Your task to perform on an android device: Open Google Maps and go to "Timeline" Image 0: 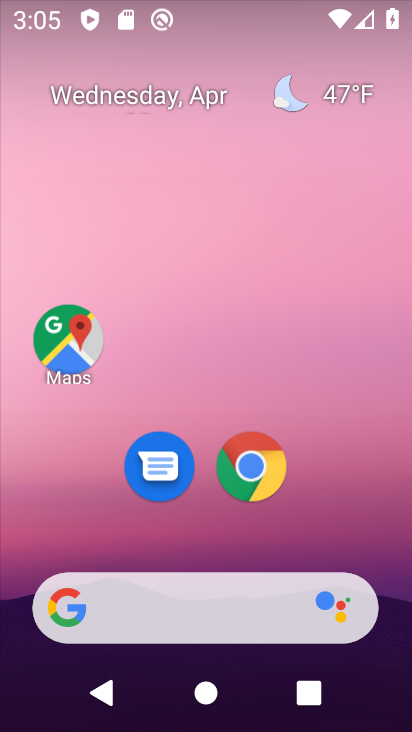
Step 0: click (60, 341)
Your task to perform on an android device: Open Google Maps and go to "Timeline" Image 1: 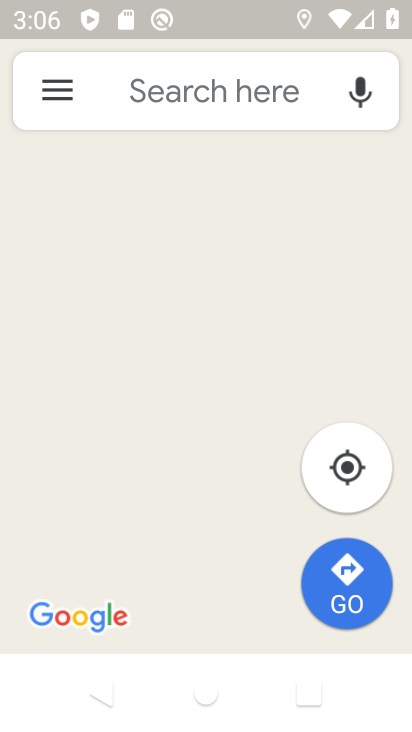
Step 1: click (60, 93)
Your task to perform on an android device: Open Google Maps and go to "Timeline" Image 2: 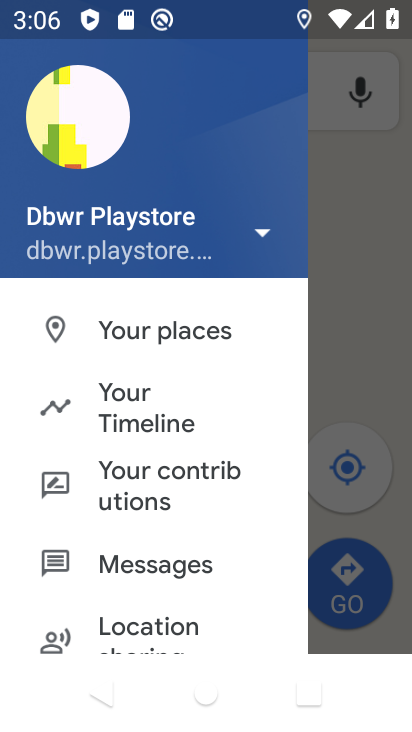
Step 2: click (123, 418)
Your task to perform on an android device: Open Google Maps and go to "Timeline" Image 3: 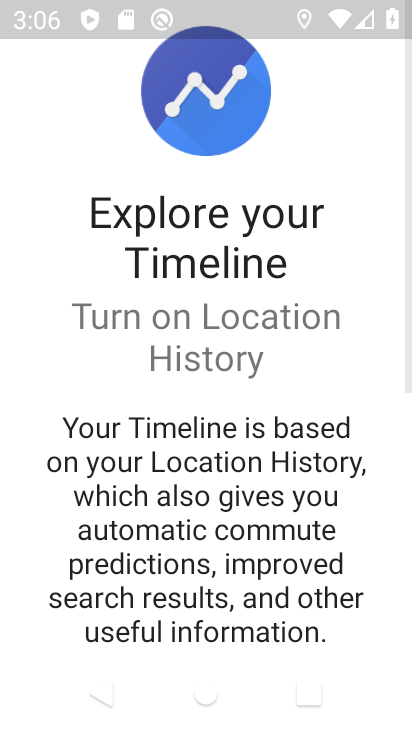
Step 3: task complete